Your task to perform on an android device: change notifications settings Image 0: 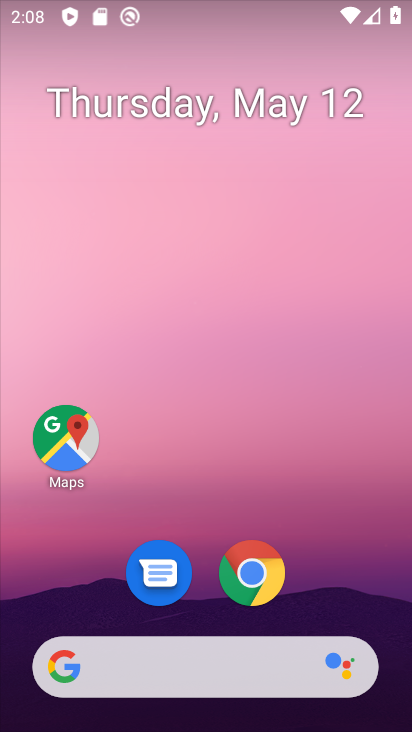
Step 0: drag from (196, 596) to (257, 248)
Your task to perform on an android device: change notifications settings Image 1: 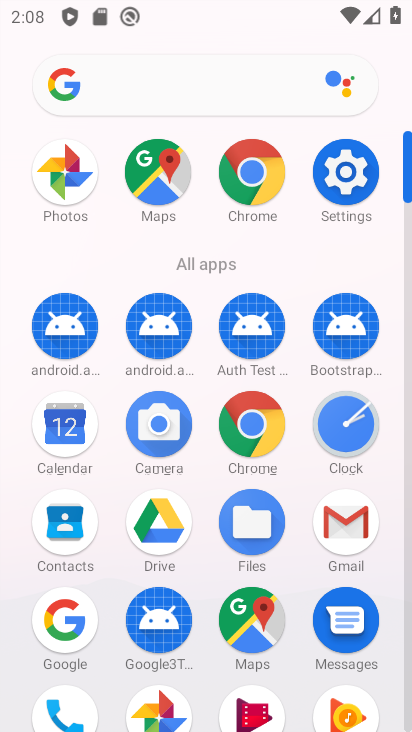
Step 1: click (354, 158)
Your task to perform on an android device: change notifications settings Image 2: 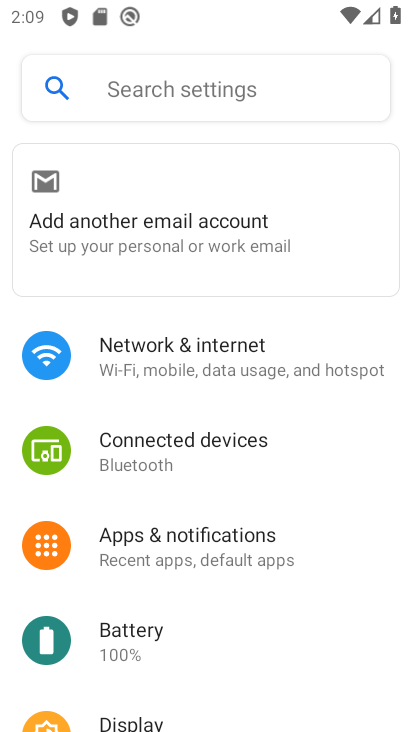
Step 2: drag from (165, 661) to (224, 219)
Your task to perform on an android device: change notifications settings Image 3: 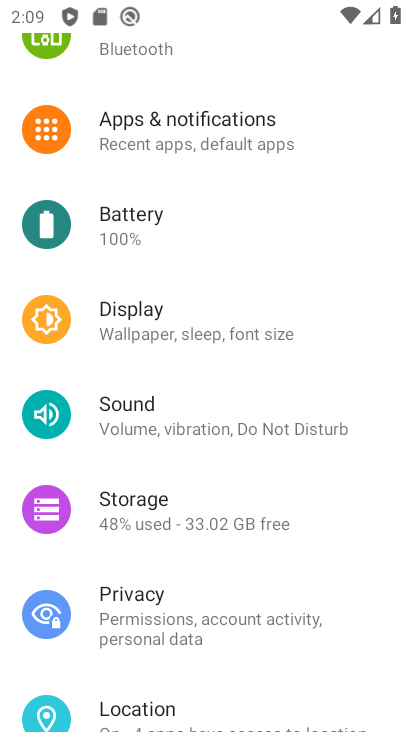
Step 3: click (171, 117)
Your task to perform on an android device: change notifications settings Image 4: 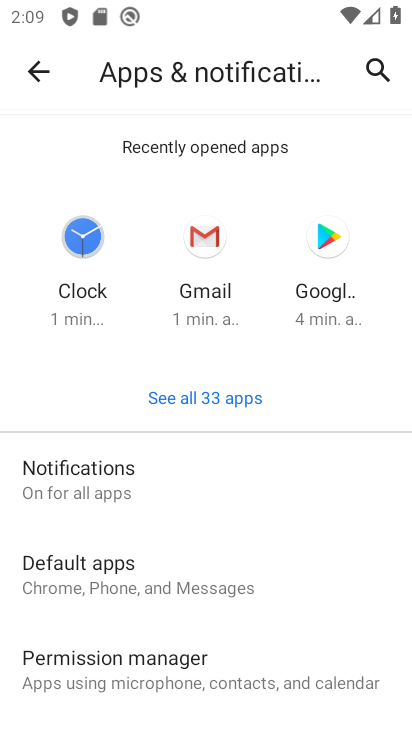
Step 4: click (184, 464)
Your task to perform on an android device: change notifications settings Image 5: 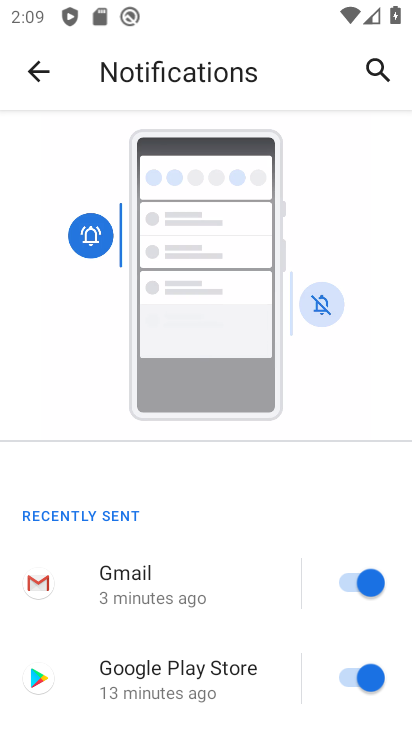
Step 5: drag from (189, 582) to (229, 285)
Your task to perform on an android device: change notifications settings Image 6: 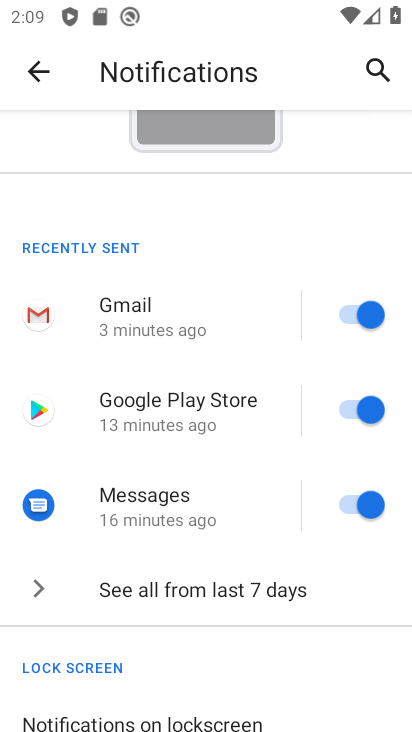
Step 6: click (374, 411)
Your task to perform on an android device: change notifications settings Image 7: 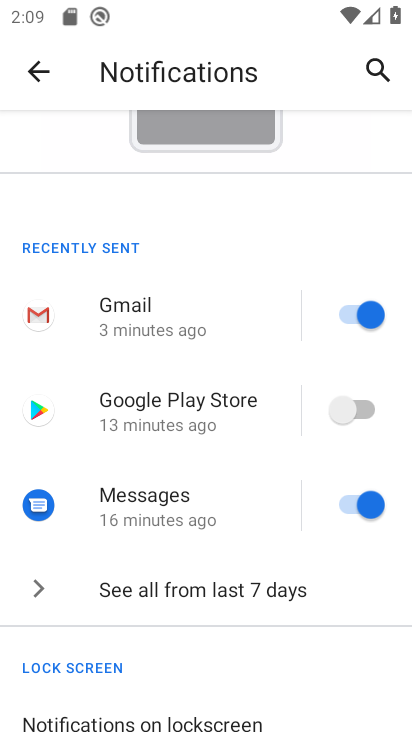
Step 7: task complete